Your task to perform on an android device: change timer sound Image 0: 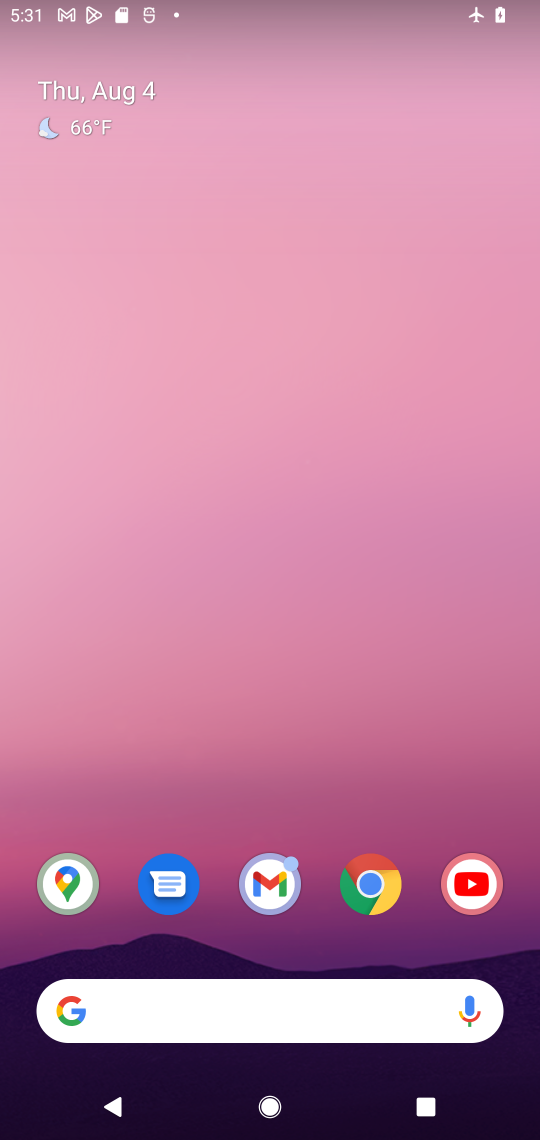
Step 0: drag from (328, 940) to (262, 351)
Your task to perform on an android device: change timer sound Image 1: 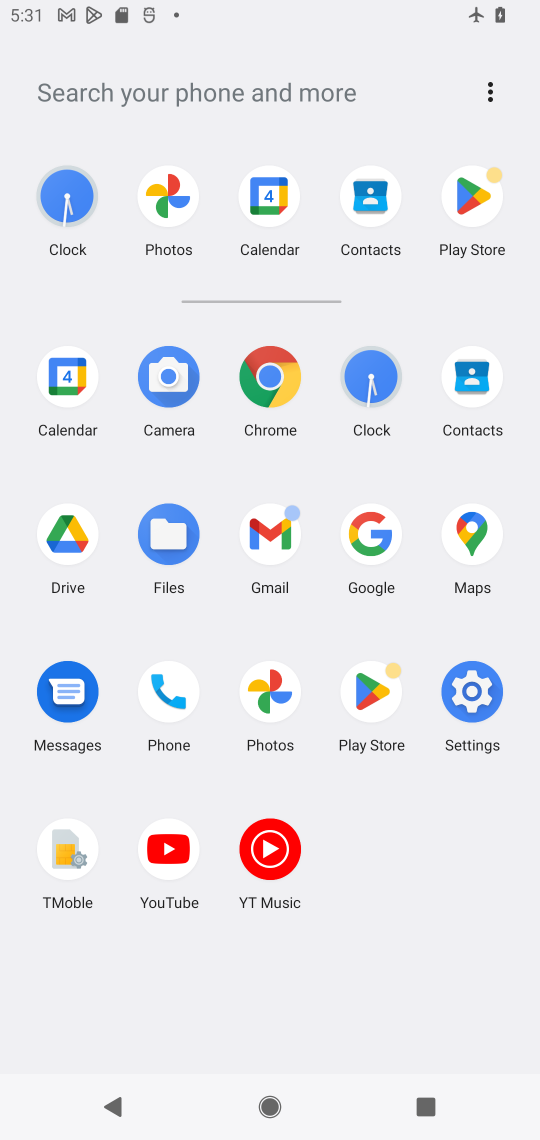
Step 1: click (388, 418)
Your task to perform on an android device: change timer sound Image 2: 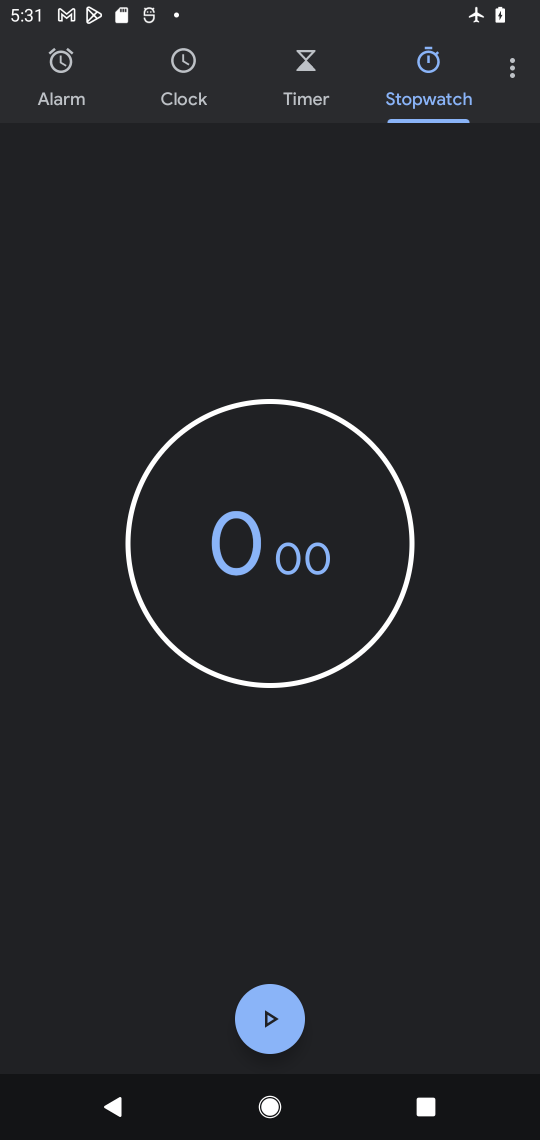
Step 2: click (513, 66)
Your task to perform on an android device: change timer sound Image 3: 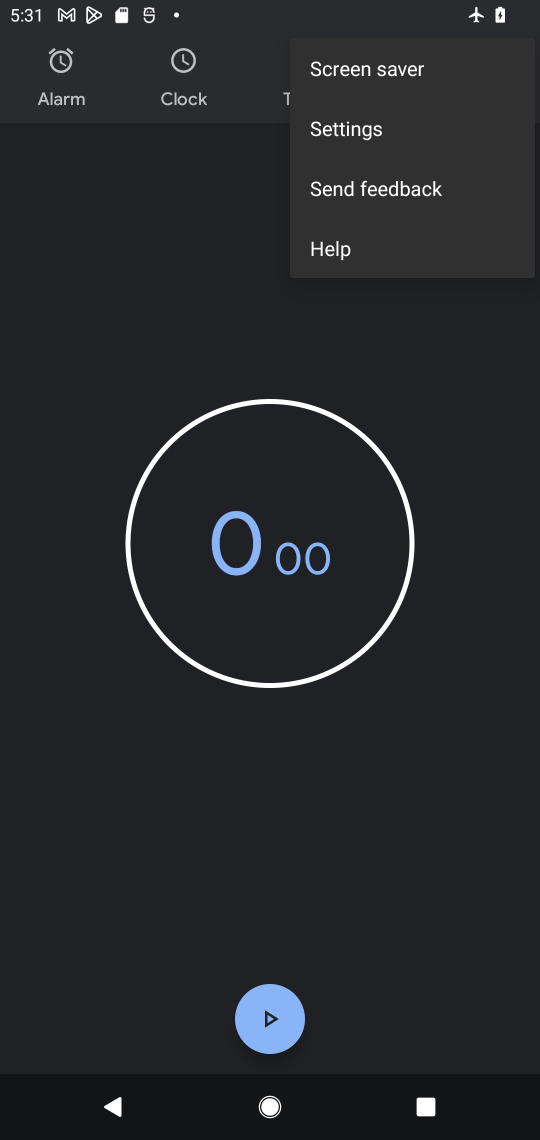
Step 3: click (364, 115)
Your task to perform on an android device: change timer sound Image 4: 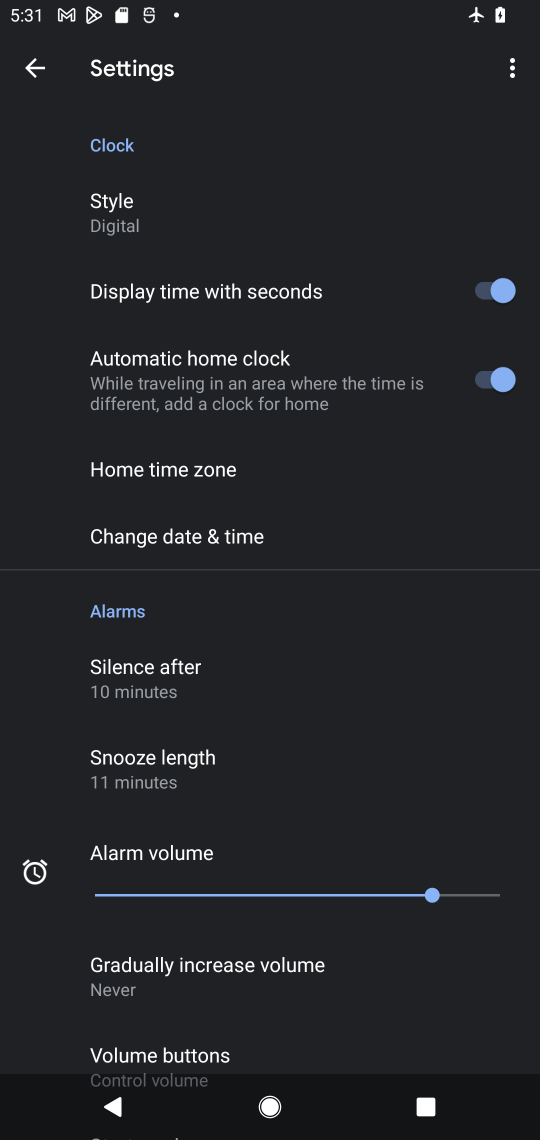
Step 4: drag from (231, 975) to (200, 263)
Your task to perform on an android device: change timer sound Image 5: 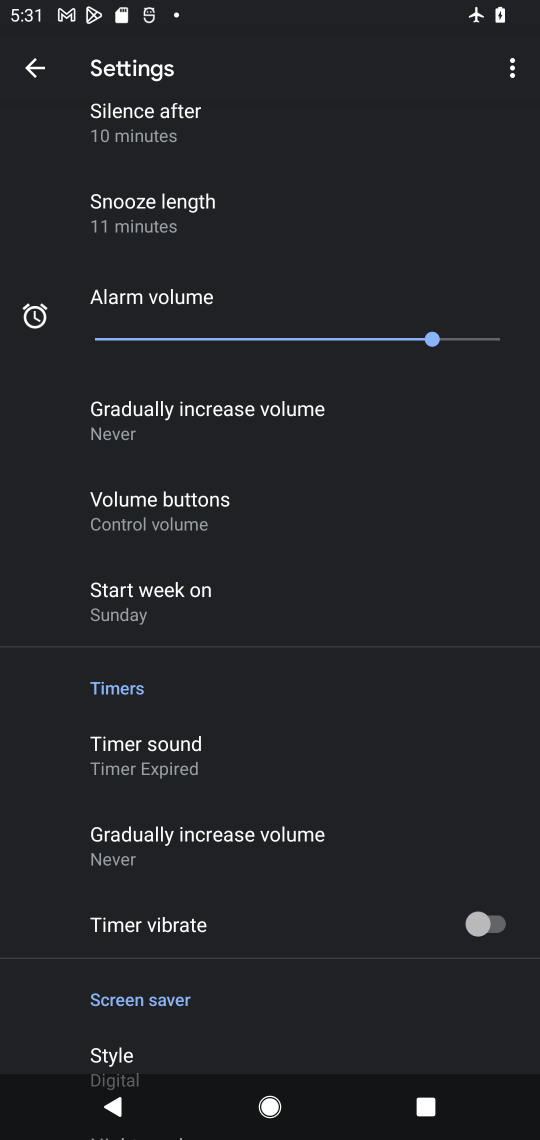
Step 5: click (239, 778)
Your task to perform on an android device: change timer sound Image 6: 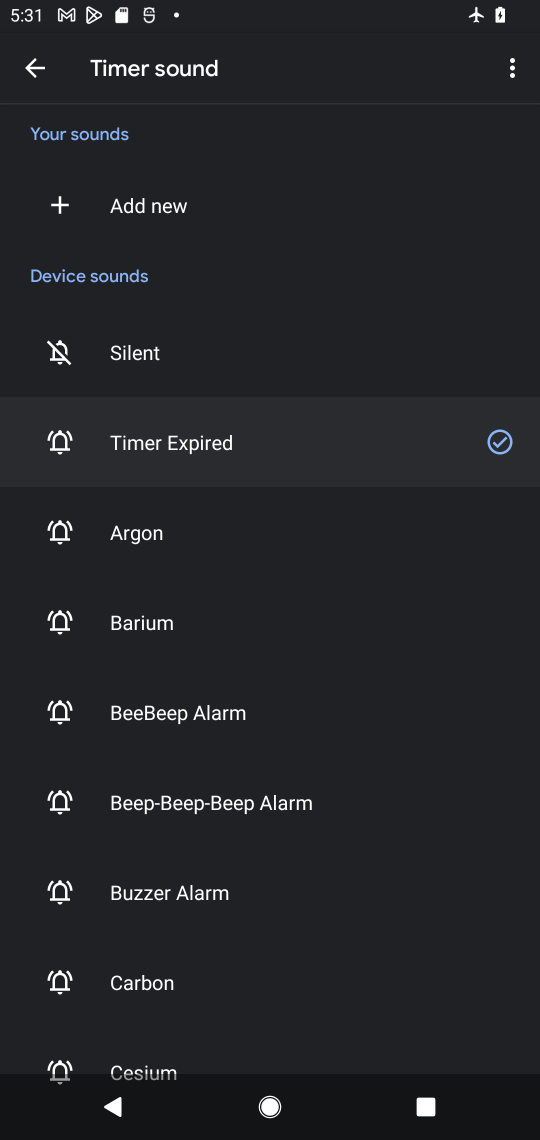
Step 6: click (201, 557)
Your task to perform on an android device: change timer sound Image 7: 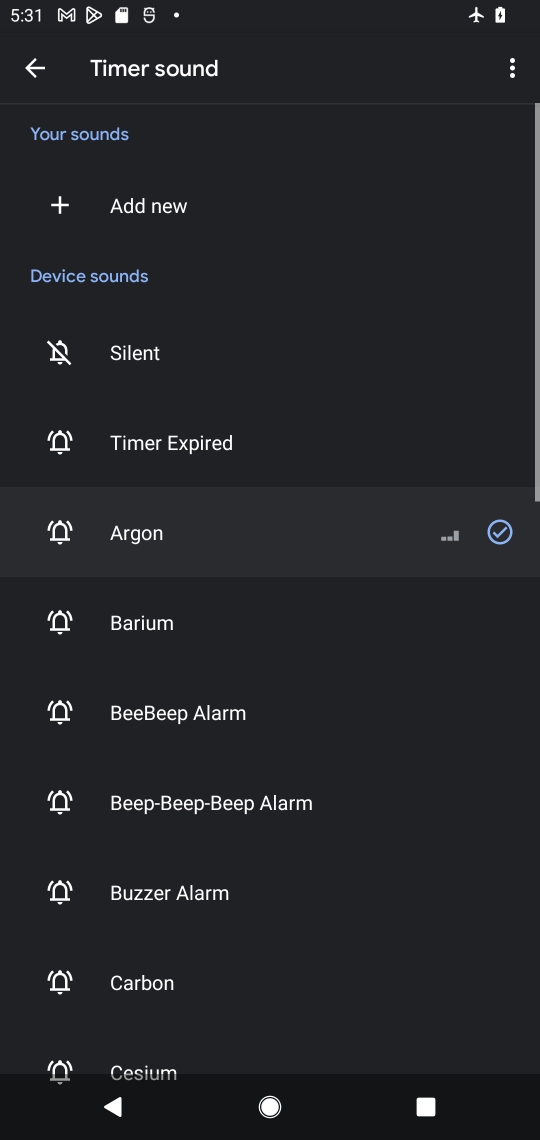
Step 7: task complete